Your task to perform on an android device: Open calendar and show me the third week of next month Image 0: 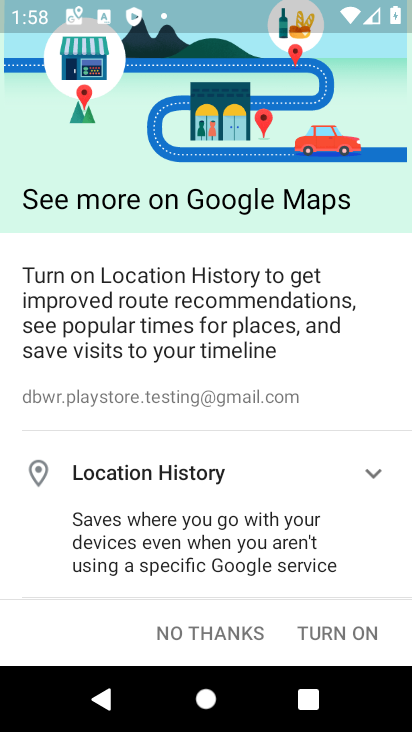
Step 0: press home button
Your task to perform on an android device: Open calendar and show me the third week of next month Image 1: 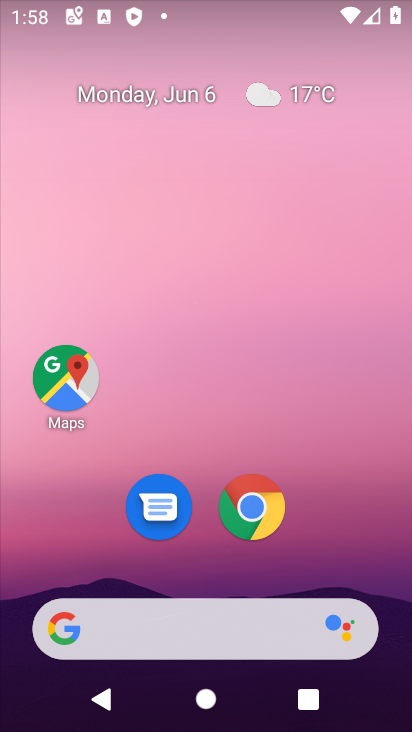
Step 1: drag from (327, 527) to (310, 18)
Your task to perform on an android device: Open calendar and show me the third week of next month Image 2: 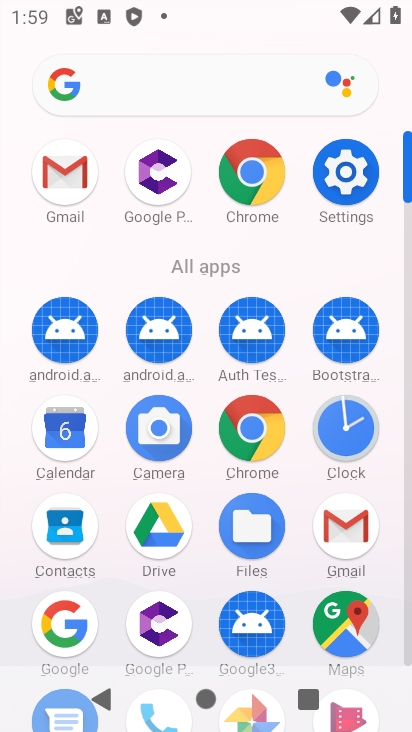
Step 2: click (74, 421)
Your task to perform on an android device: Open calendar and show me the third week of next month Image 3: 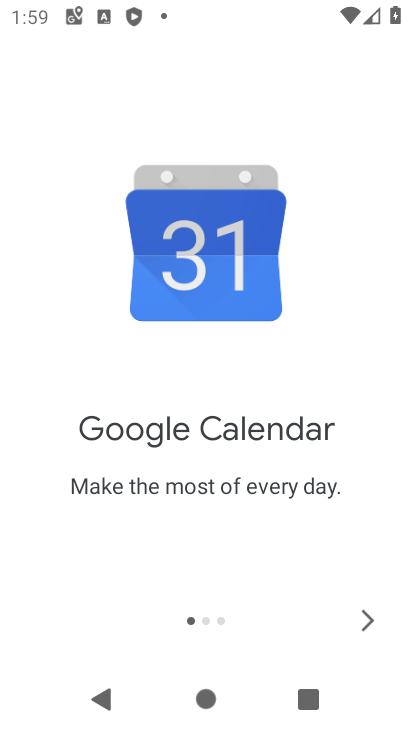
Step 3: click (367, 611)
Your task to perform on an android device: Open calendar and show me the third week of next month Image 4: 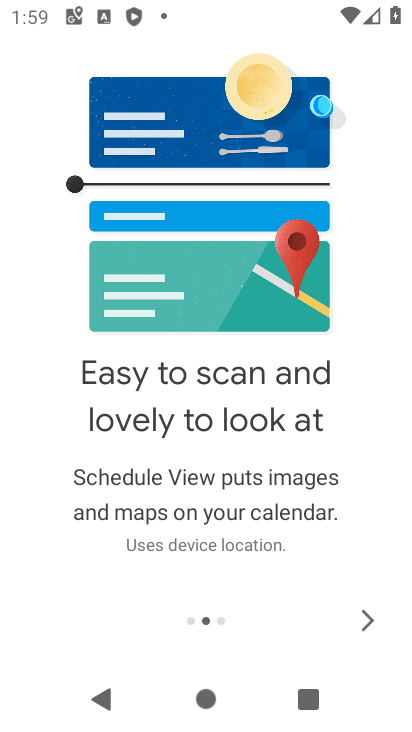
Step 4: click (367, 611)
Your task to perform on an android device: Open calendar and show me the third week of next month Image 5: 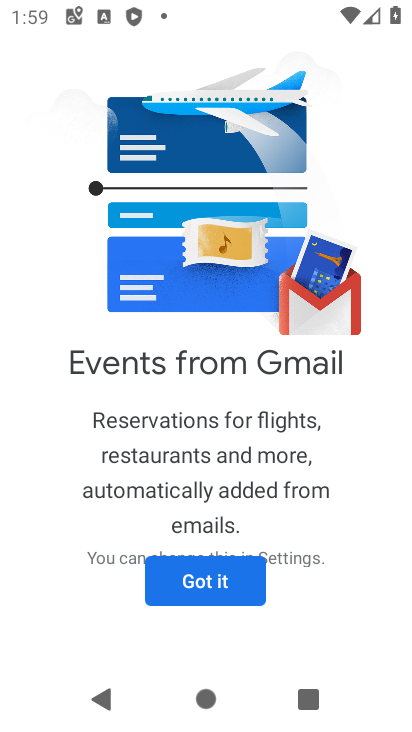
Step 5: click (249, 590)
Your task to perform on an android device: Open calendar and show me the third week of next month Image 6: 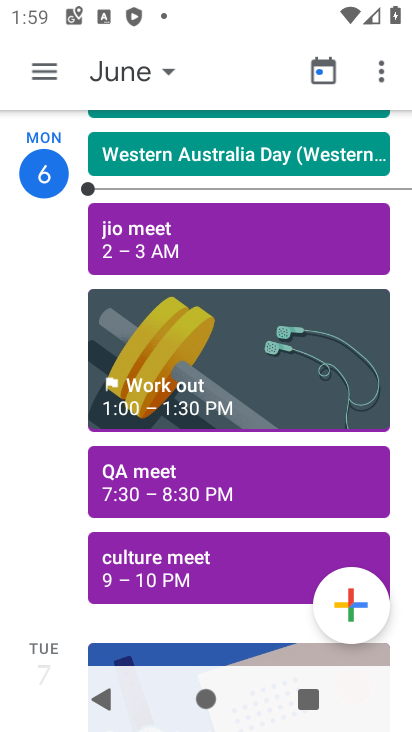
Step 6: click (38, 68)
Your task to perform on an android device: Open calendar and show me the third week of next month Image 7: 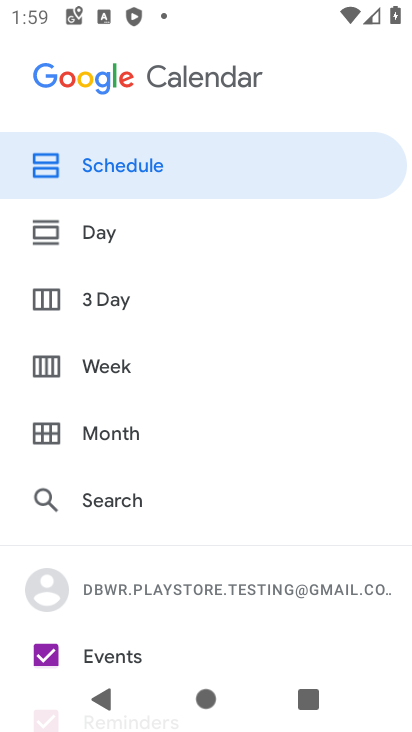
Step 7: click (53, 434)
Your task to perform on an android device: Open calendar and show me the third week of next month Image 8: 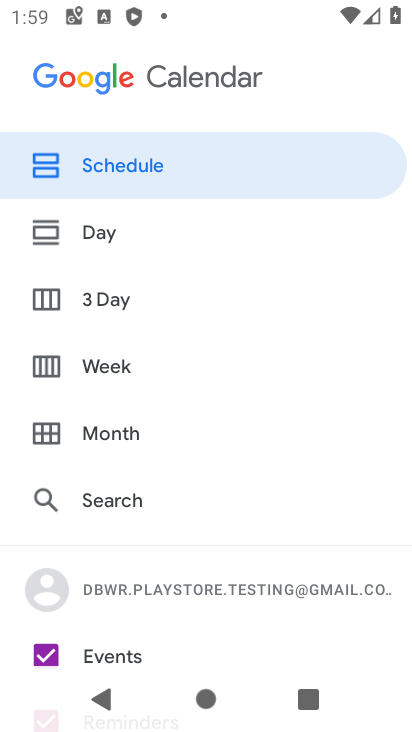
Step 8: click (53, 435)
Your task to perform on an android device: Open calendar and show me the third week of next month Image 9: 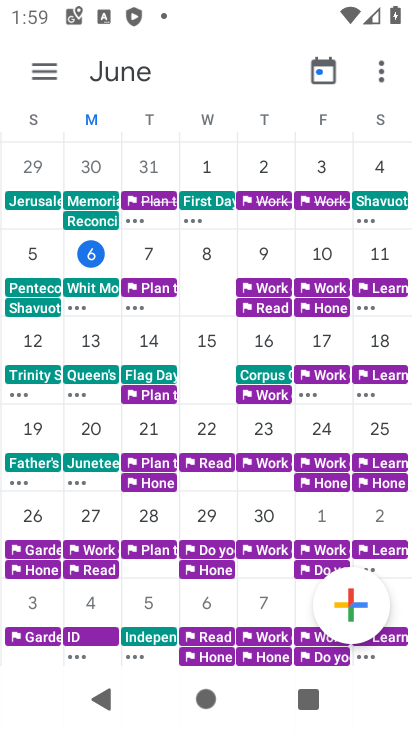
Step 9: drag from (371, 421) to (0, 424)
Your task to perform on an android device: Open calendar and show me the third week of next month Image 10: 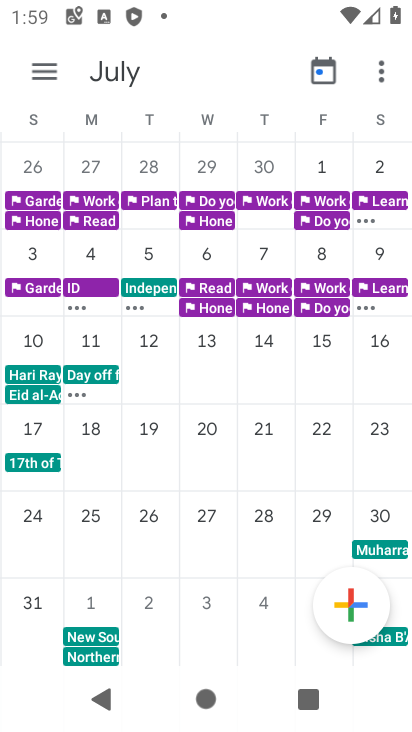
Step 10: click (40, 421)
Your task to perform on an android device: Open calendar and show me the third week of next month Image 11: 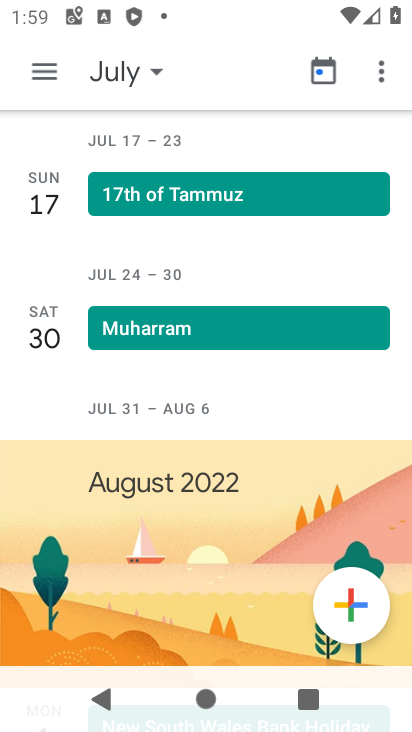
Step 11: click (52, 67)
Your task to perform on an android device: Open calendar and show me the third week of next month Image 12: 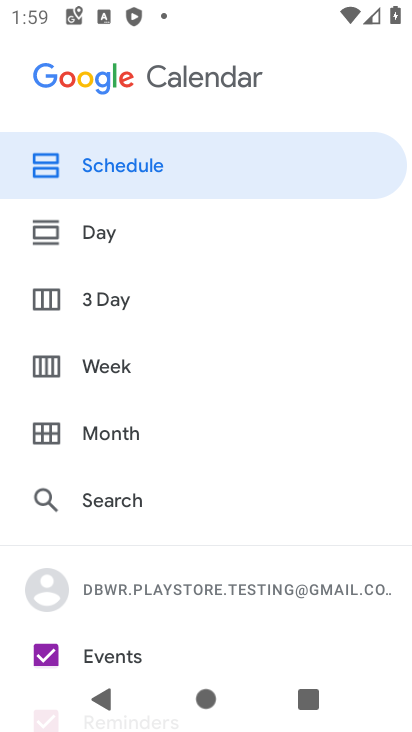
Step 12: click (37, 362)
Your task to perform on an android device: Open calendar and show me the third week of next month Image 13: 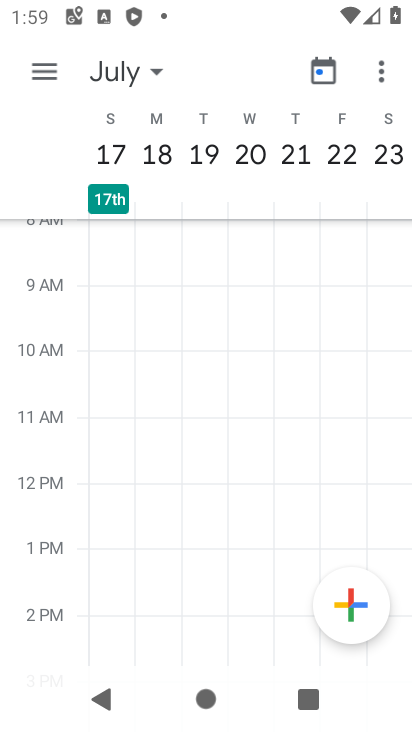
Step 13: task complete